Your task to perform on an android device: Open Chrome and go to the settings page Image 0: 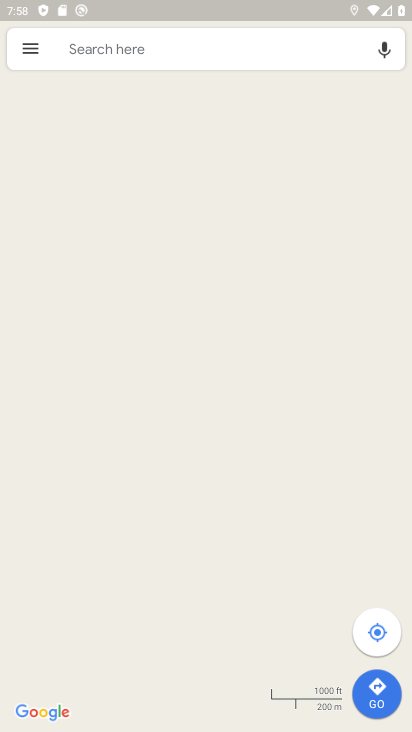
Step 0: press home button
Your task to perform on an android device: Open Chrome and go to the settings page Image 1: 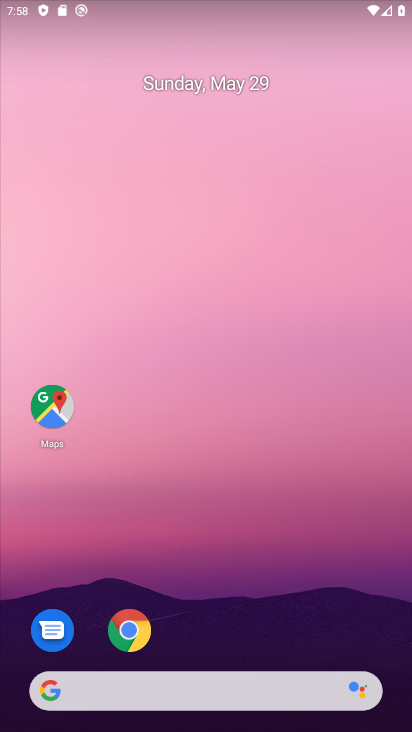
Step 1: click (145, 639)
Your task to perform on an android device: Open Chrome and go to the settings page Image 2: 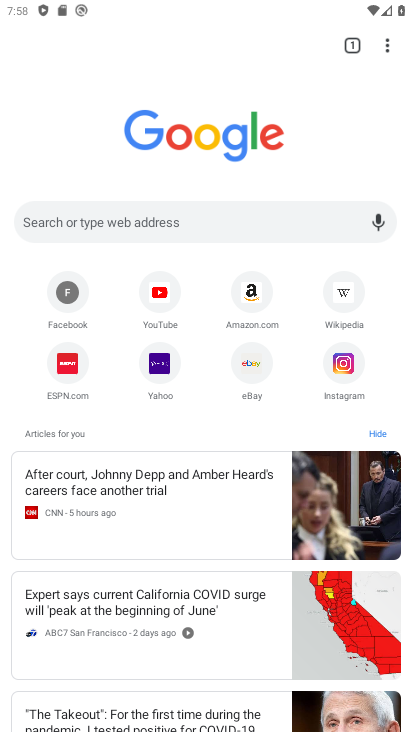
Step 2: click (386, 48)
Your task to perform on an android device: Open Chrome and go to the settings page Image 3: 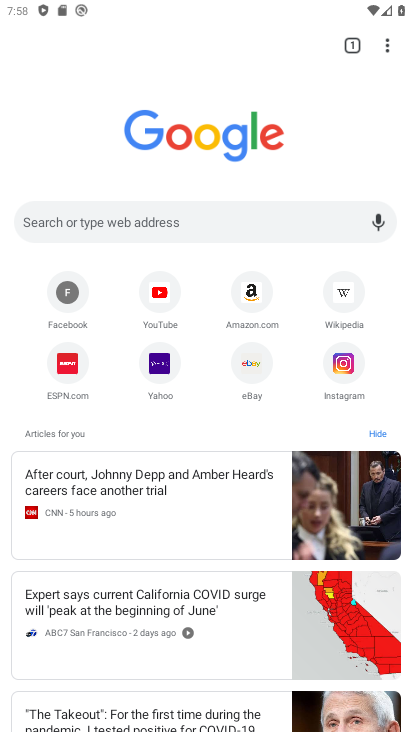
Step 3: task complete